Your task to perform on an android device: change timer sound Image 0: 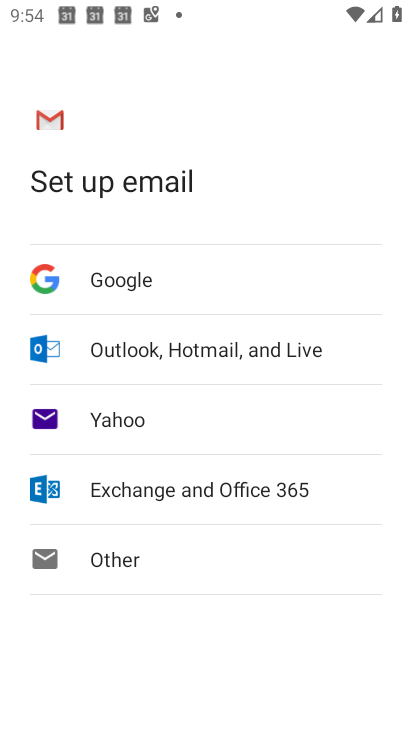
Step 0: press home button
Your task to perform on an android device: change timer sound Image 1: 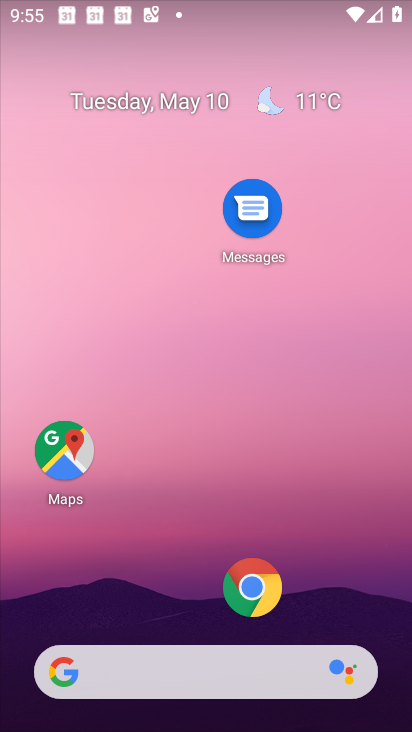
Step 1: drag from (159, 624) to (209, 29)
Your task to perform on an android device: change timer sound Image 2: 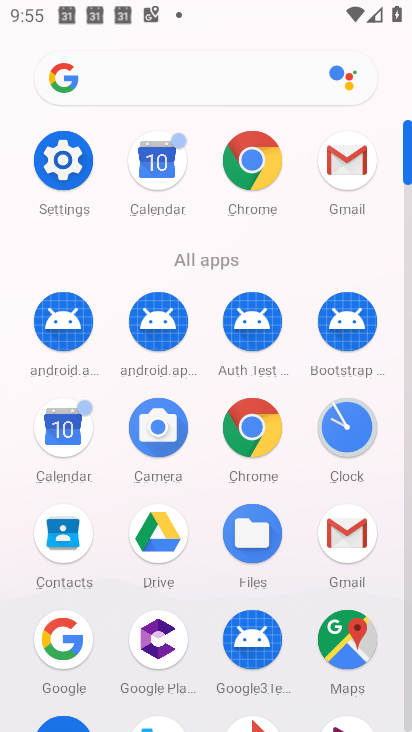
Step 2: click (350, 436)
Your task to perform on an android device: change timer sound Image 3: 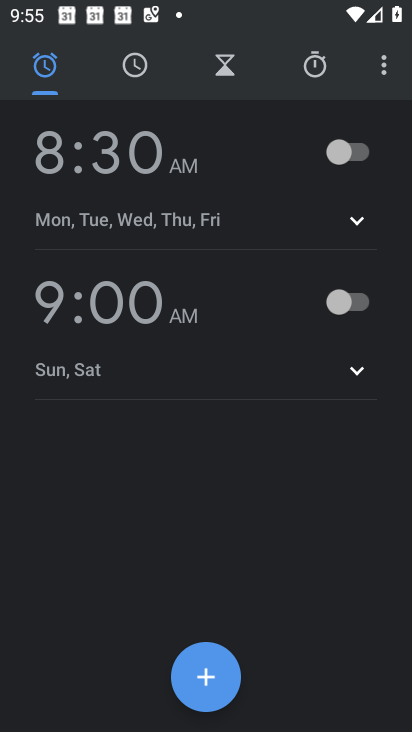
Step 3: click (381, 49)
Your task to perform on an android device: change timer sound Image 4: 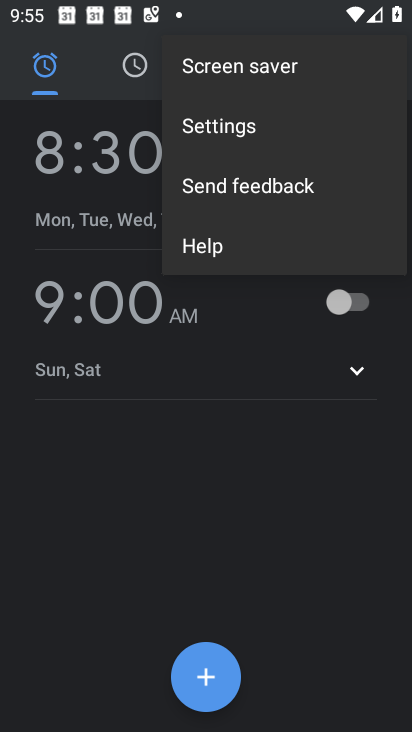
Step 4: click (218, 137)
Your task to perform on an android device: change timer sound Image 5: 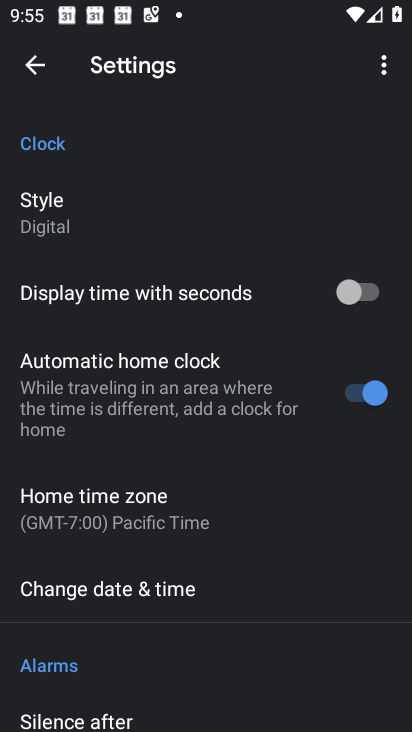
Step 5: drag from (181, 534) to (235, 90)
Your task to perform on an android device: change timer sound Image 6: 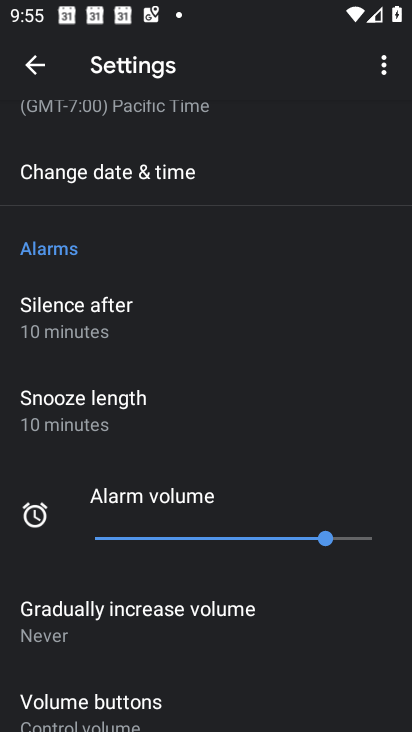
Step 6: drag from (205, 583) to (205, 232)
Your task to perform on an android device: change timer sound Image 7: 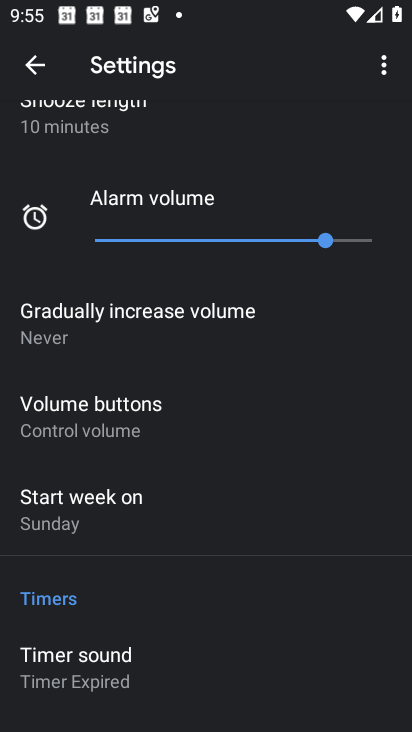
Step 7: drag from (158, 643) to (156, 457)
Your task to perform on an android device: change timer sound Image 8: 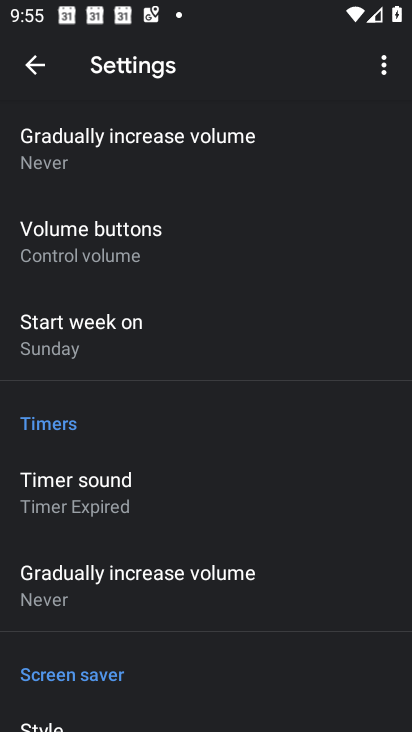
Step 8: click (125, 510)
Your task to perform on an android device: change timer sound Image 9: 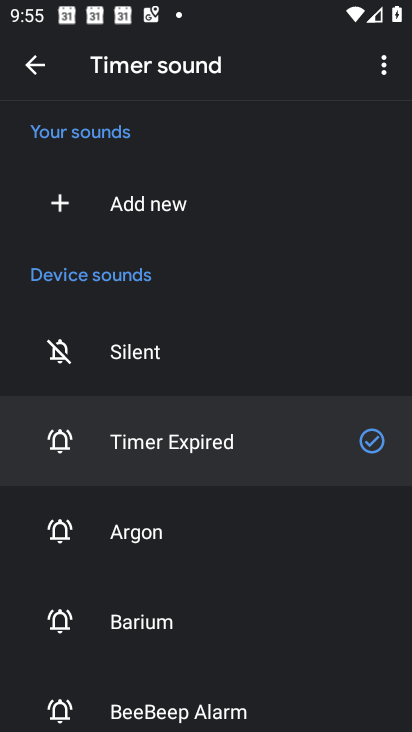
Step 9: click (134, 639)
Your task to perform on an android device: change timer sound Image 10: 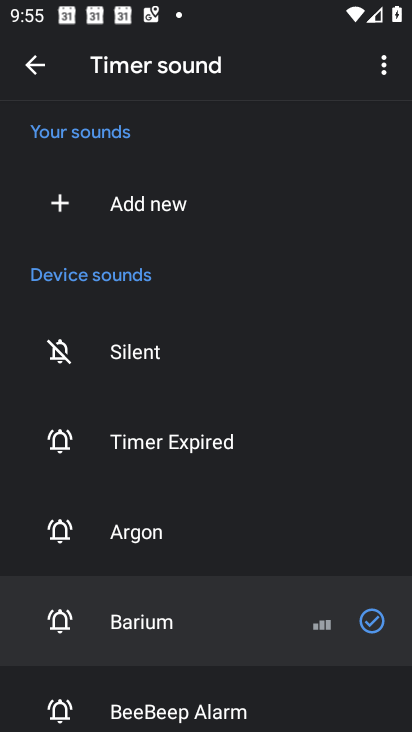
Step 10: task complete